Your task to perform on an android device: What is the news today? Image 0: 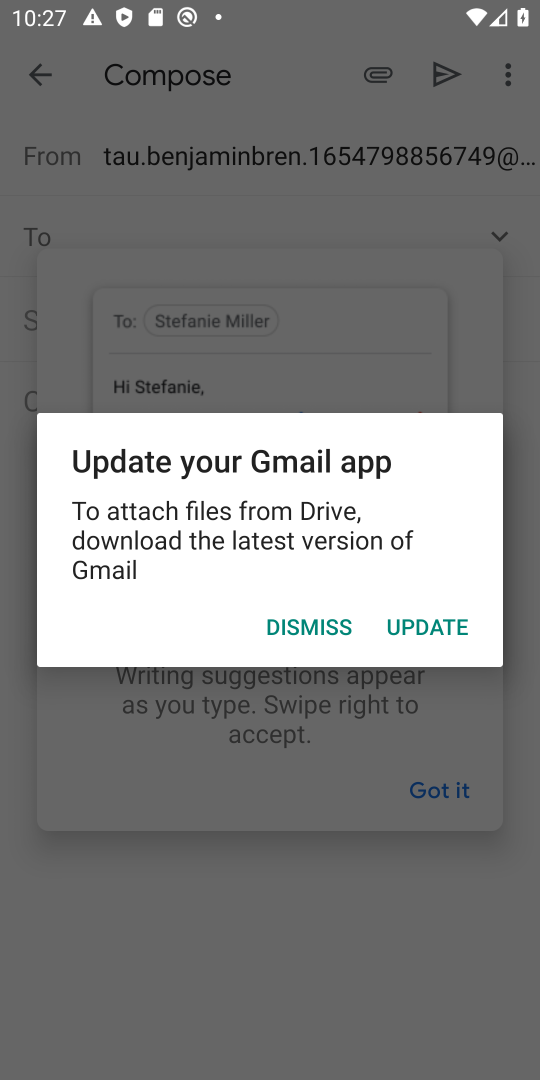
Step 0: press home button
Your task to perform on an android device: What is the news today? Image 1: 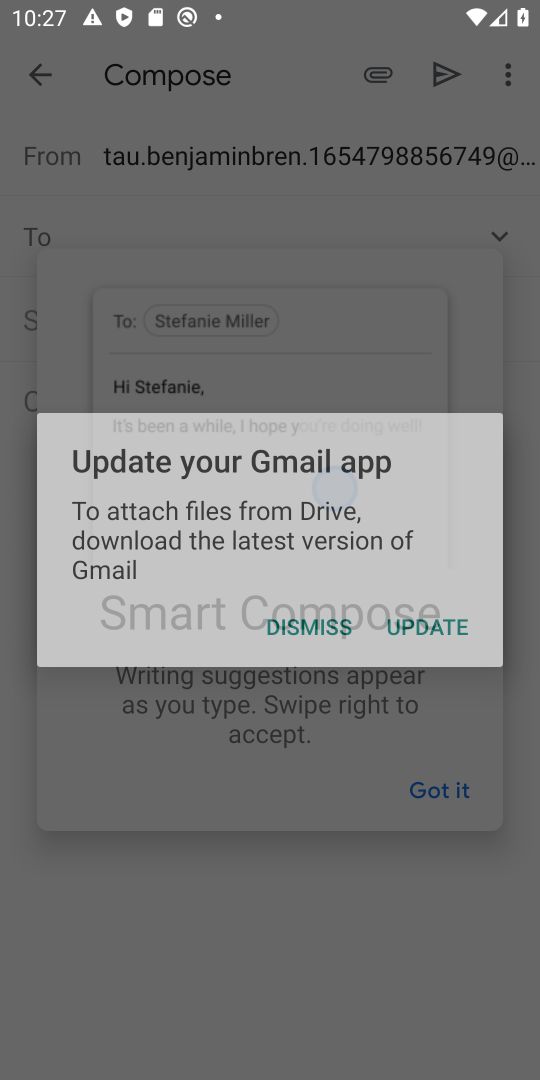
Step 1: press home button
Your task to perform on an android device: What is the news today? Image 2: 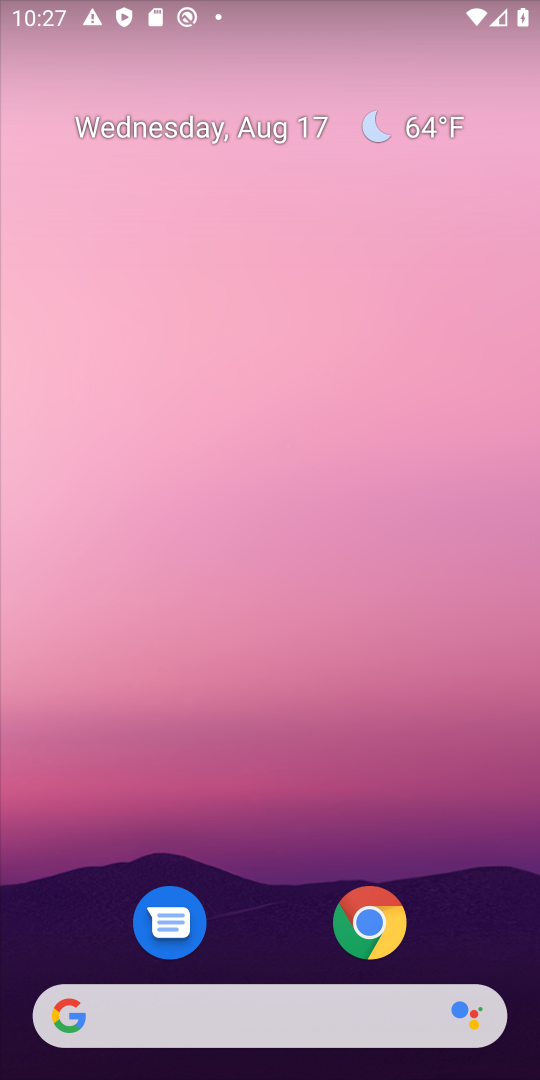
Step 2: click (372, 923)
Your task to perform on an android device: What is the news today? Image 3: 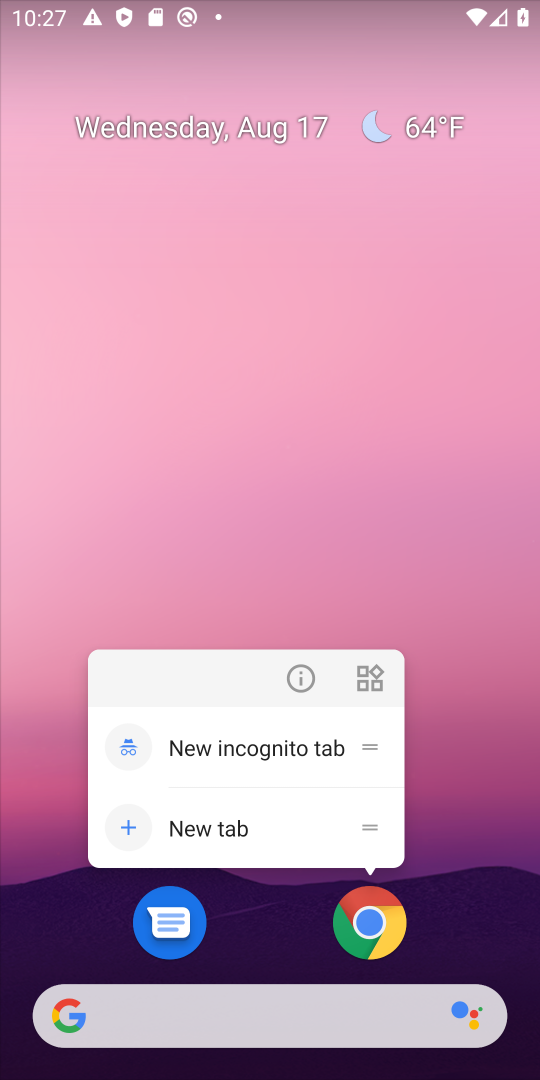
Step 3: click (372, 923)
Your task to perform on an android device: What is the news today? Image 4: 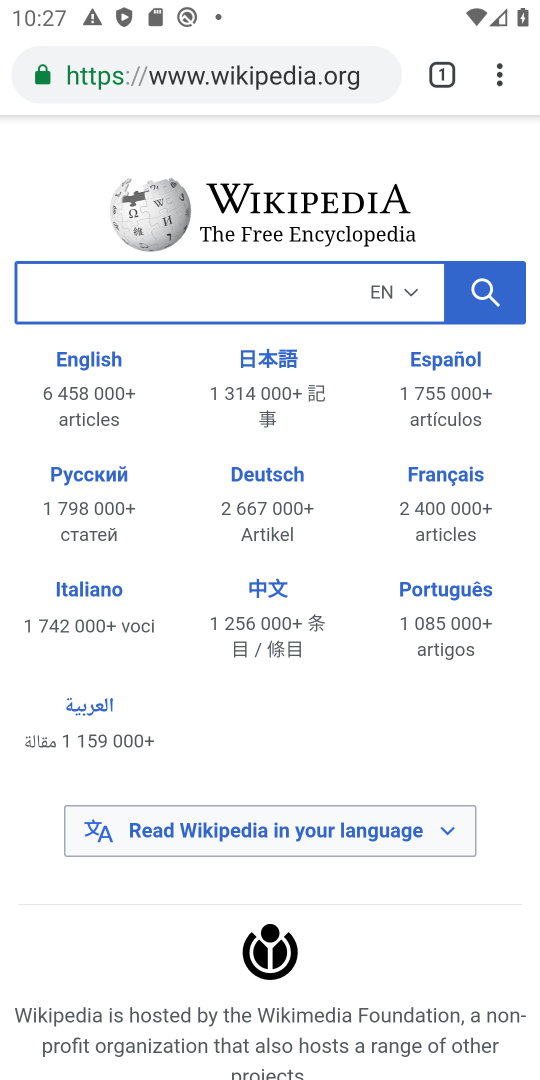
Step 4: click (307, 66)
Your task to perform on an android device: What is the news today? Image 5: 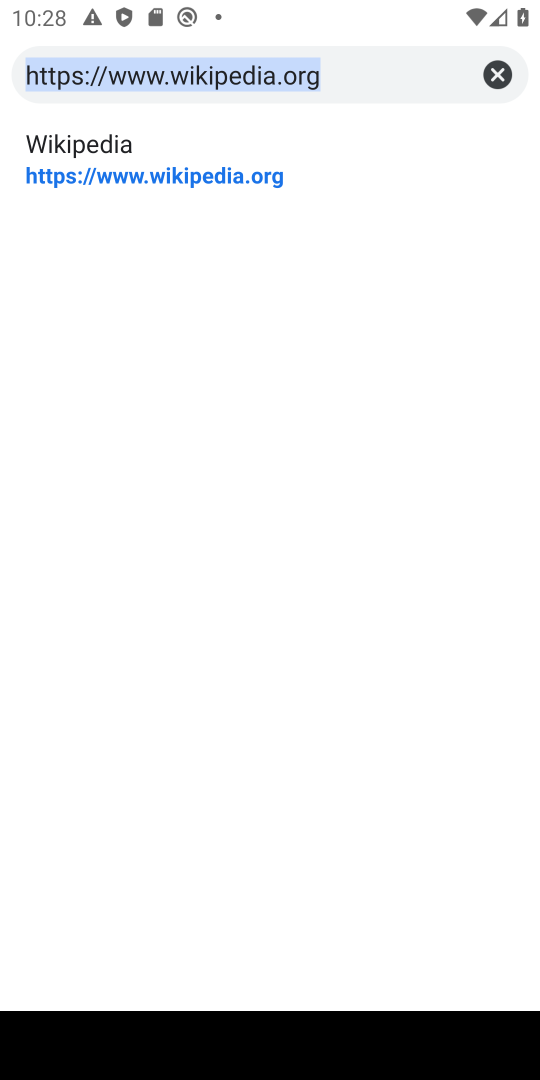
Step 5: type "news"
Your task to perform on an android device: What is the news today? Image 6: 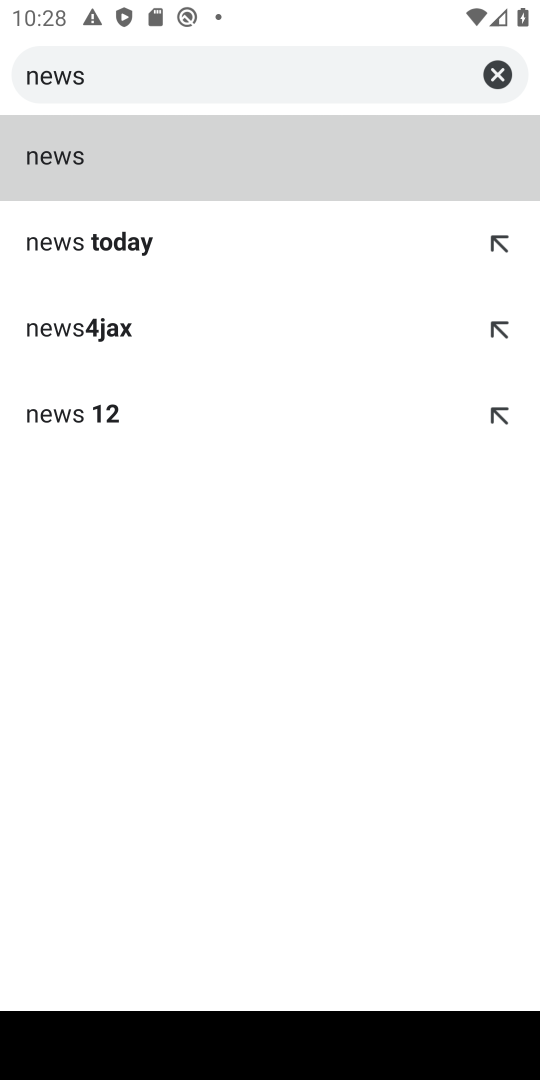
Step 6: click (63, 162)
Your task to perform on an android device: What is the news today? Image 7: 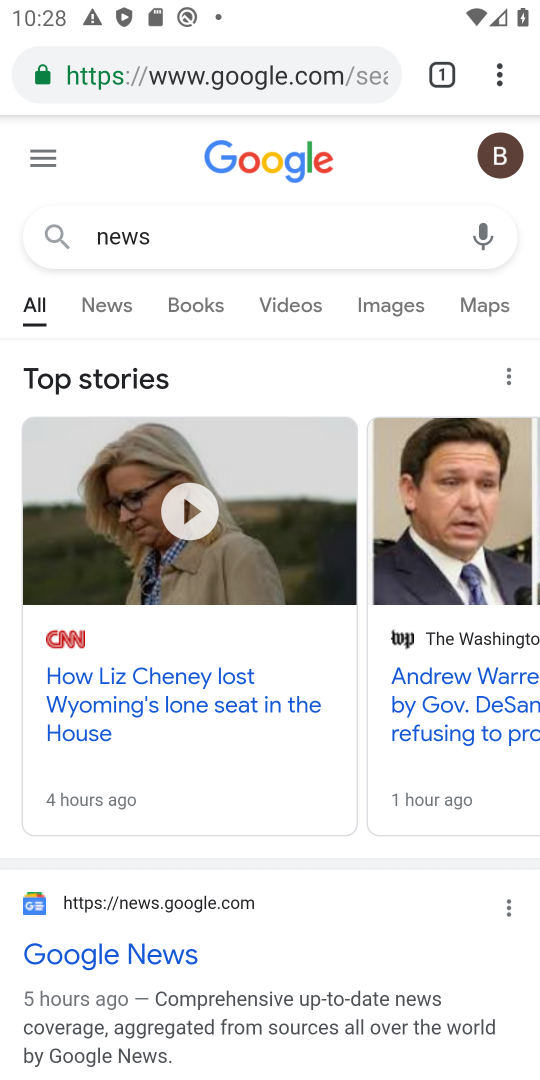
Step 7: click (156, 944)
Your task to perform on an android device: What is the news today? Image 8: 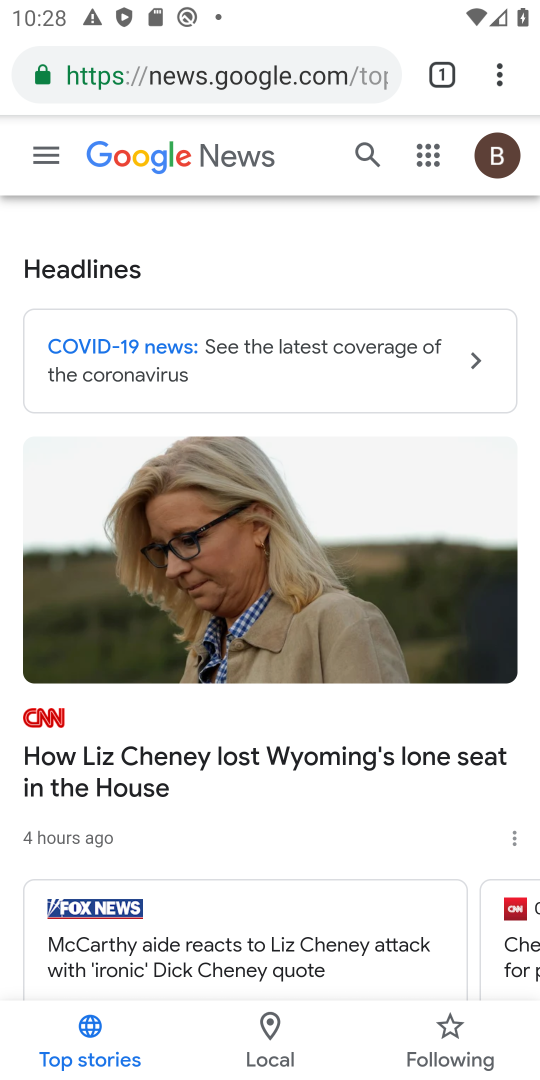
Step 8: task complete